Your task to perform on an android device: Go to Wikipedia Image 0: 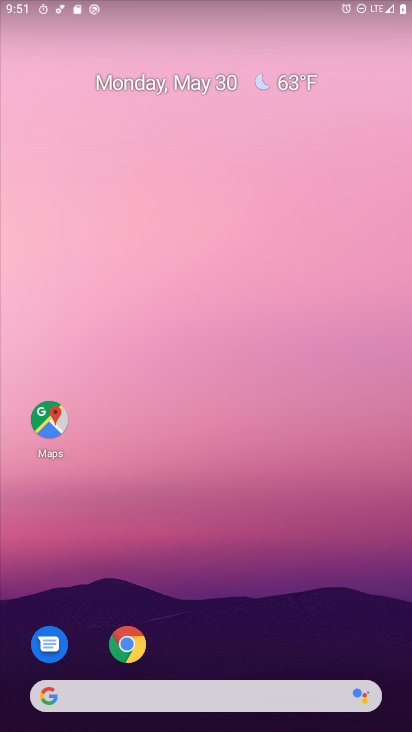
Step 0: drag from (208, 629) to (198, 0)
Your task to perform on an android device: Go to Wikipedia Image 1: 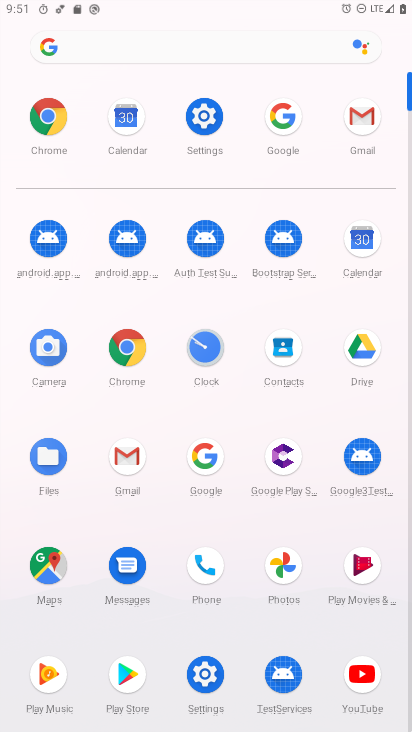
Step 1: click (121, 343)
Your task to perform on an android device: Go to Wikipedia Image 2: 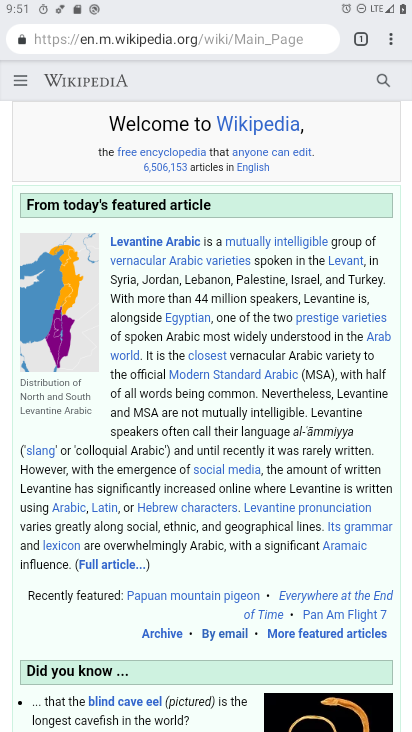
Step 2: task complete